Your task to perform on an android device: toggle show notifications on the lock screen Image 0: 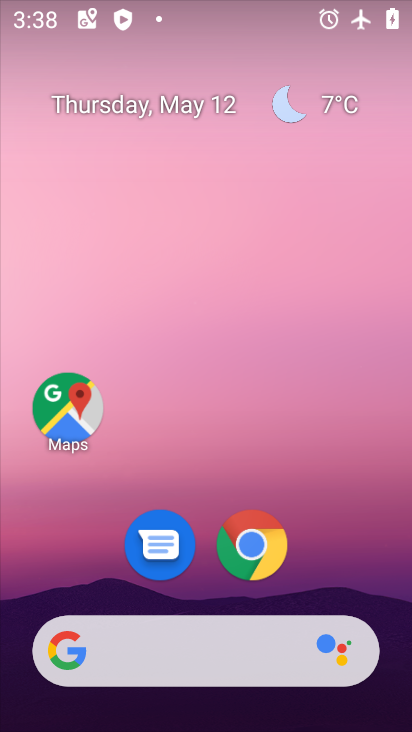
Step 0: drag from (398, 624) to (301, 61)
Your task to perform on an android device: toggle show notifications on the lock screen Image 1: 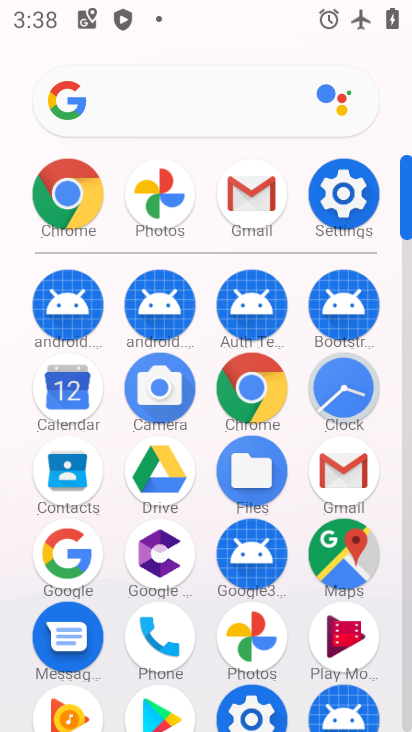
Step 1: click (408, 699)
Your task to perform on an android device: toggle show notifications on the lock screen Image 2: 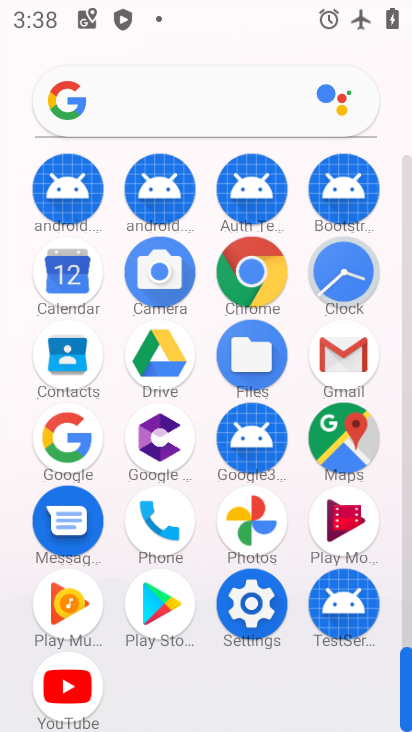
Step 2: click (252, 599)
Your task to perform on an android device: toggle show notifications on the lock screen Image 3: 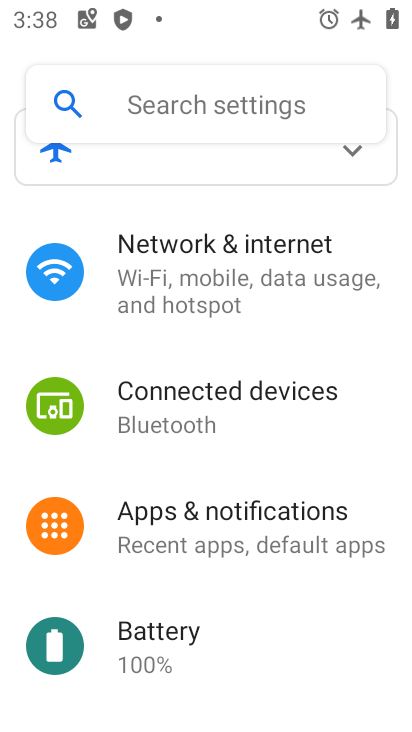
Step 3: click (201, 505)
Your task to perform on an android device: toggle show notifications on the lock screen Image 4: 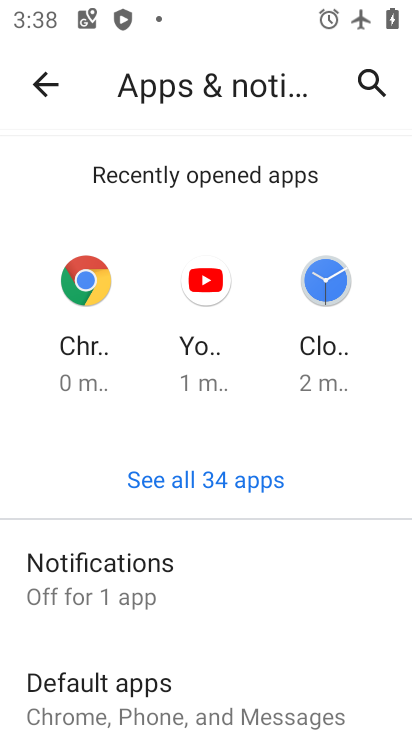
Step 4: click (128, 572)
Your task to perform on an android device: toggle show notifications on the lock screen Image 5: 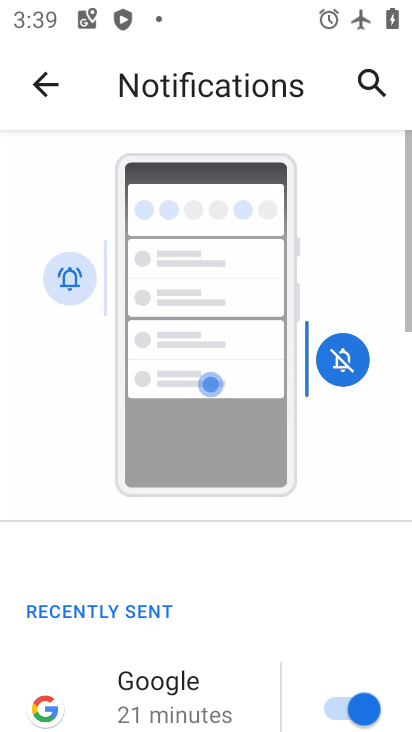
Step 5: drag from (300, 650) to (203, 217)
Your task to perform on an android device: toggle show notifications on the lock screen Image 6: 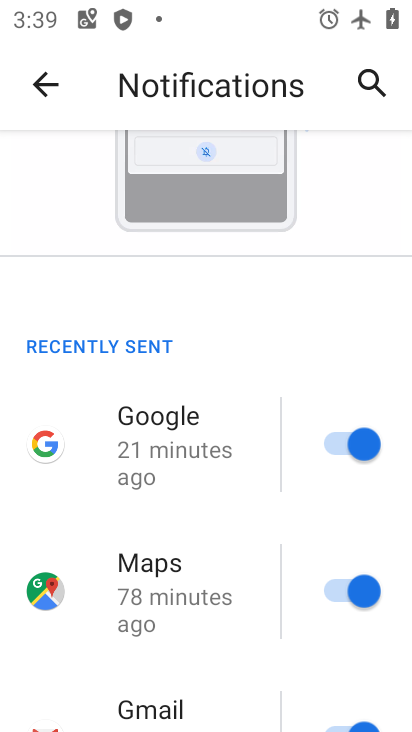
Step 6: drag from (271, 696) to (162, 170)
Your task to perform on an android device: toggle show notifications on the lock screen Image 7: 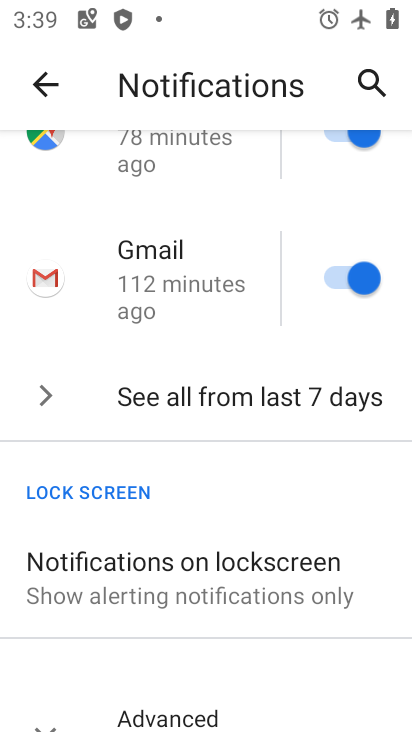
Step 7: click (127, 573)
Your task to perform on an android device: toggle show notifications on the lock screen Image 8: 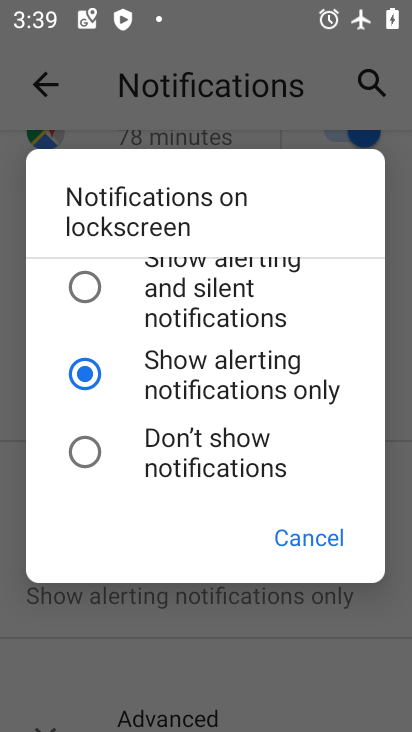
Step 8: click (87, 289)
Your task to perform on an android device: toggle show notifications on the lock screen Image 9: 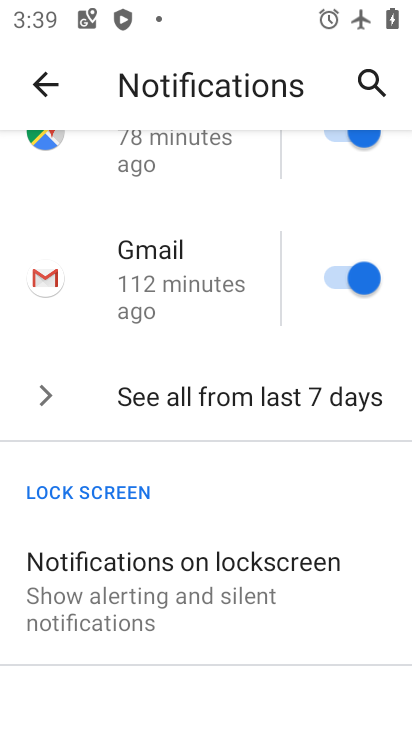
Step 9: task complete